Your task to perform on an android device: Go to Amazon Image 0: 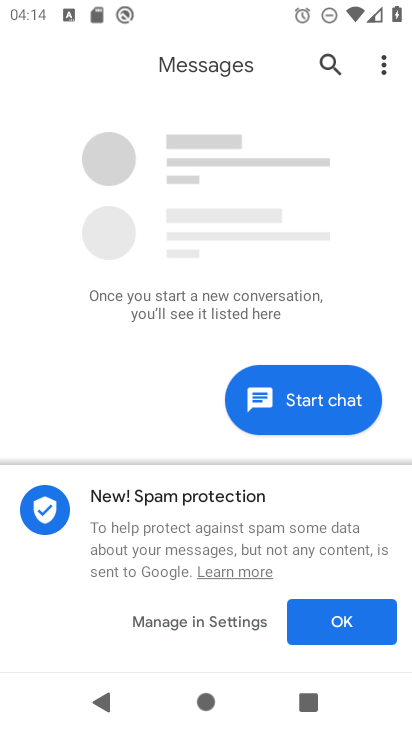
Step 0: press home button
Your task to perform on an android device: Go to Amazon Image 1: 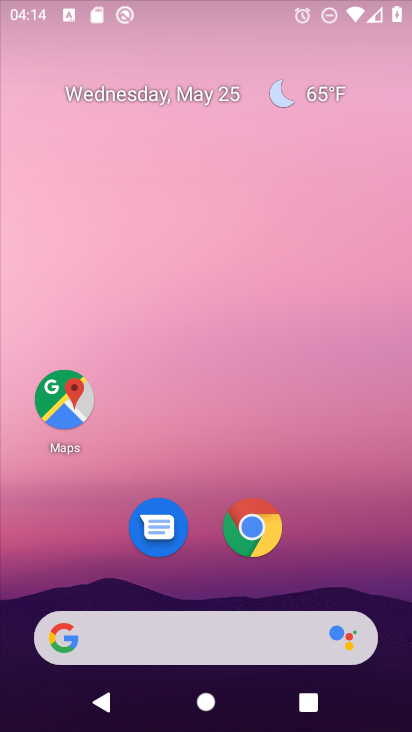
Step 1: drag from (113, 617) to (329, 4)
Your task to perform on an android device: Go to Amazon Image 2: 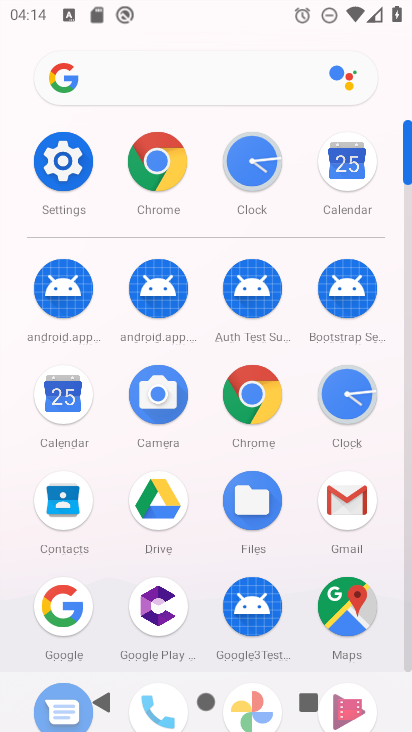
Step 2: click (255, 387)
Your task to perform on an android device: Go to Amazon Image 3: 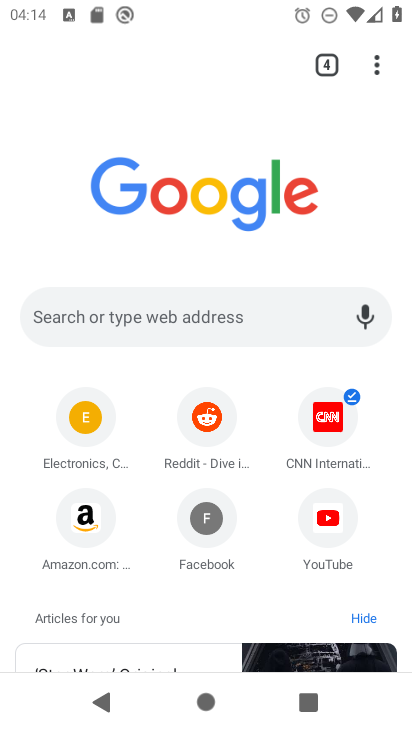
Step 3: click (83, 497)
Your task to perform on an android device: Go to Amazon Image 4: 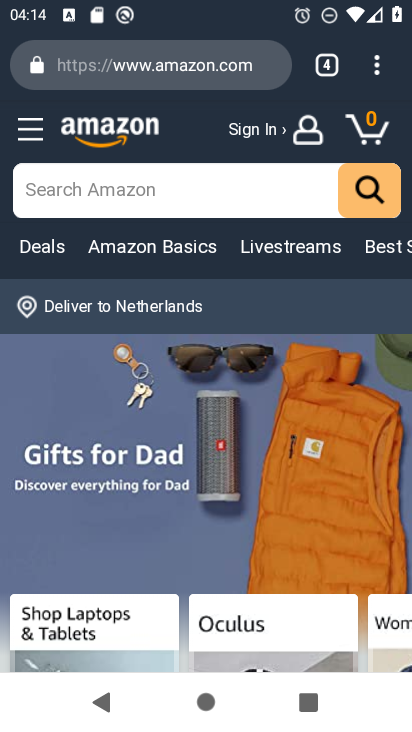
Step 4: task complete